Your task to perform on an android device: allow cookies in the chrome app Image 0: 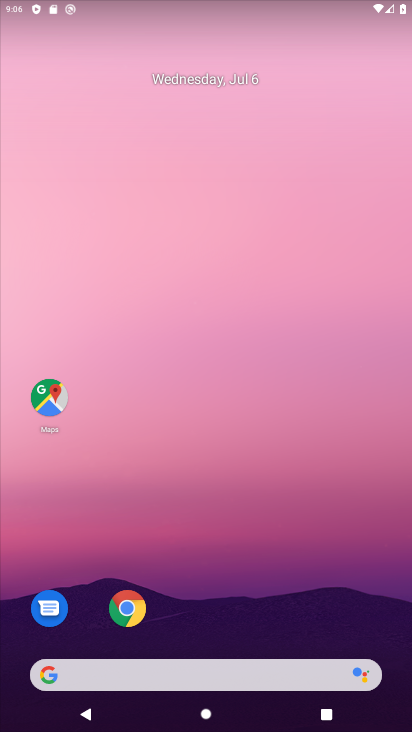
Step 0: click (130, 611)
Your task to perform on an android device: allow cookies in the chrome app Image 1: 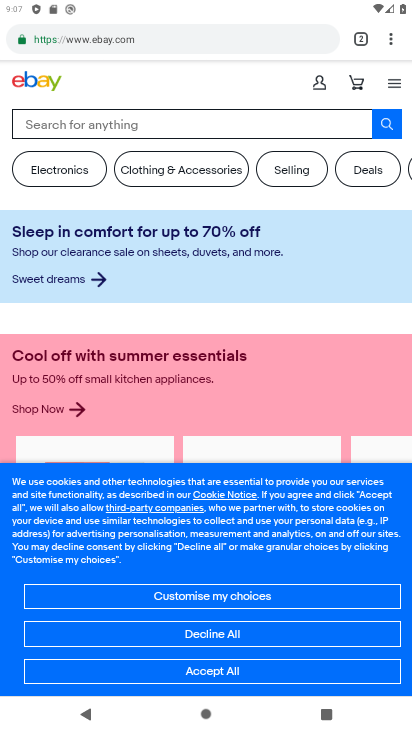
Step 1: click (392, 40)
Your task to perform on an android device: allow cookies in the chrome app Image 2: 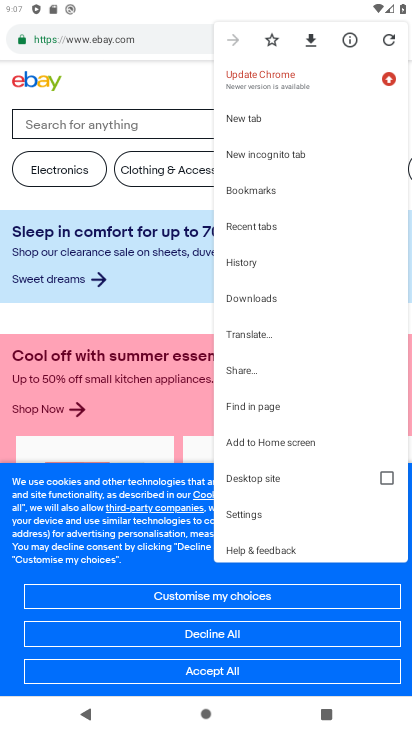
Step 2: click (243, 511)
Your task to perform on an android device: allow cookies in the chrome app Image 3: 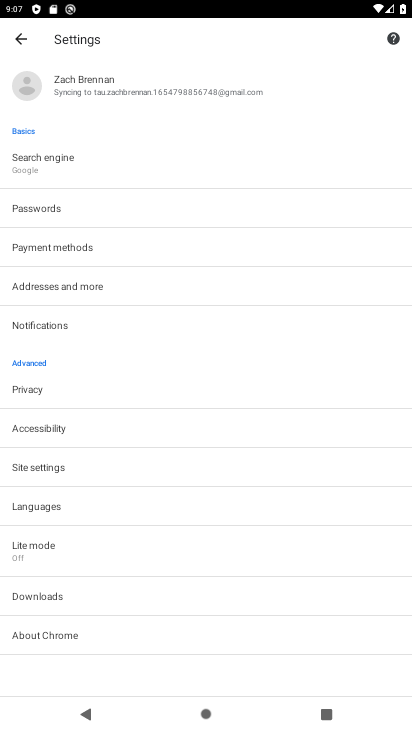
Step 3: click (46, 462)
Your task to perform on an android device: allow cookies in the chrome app Image 4: 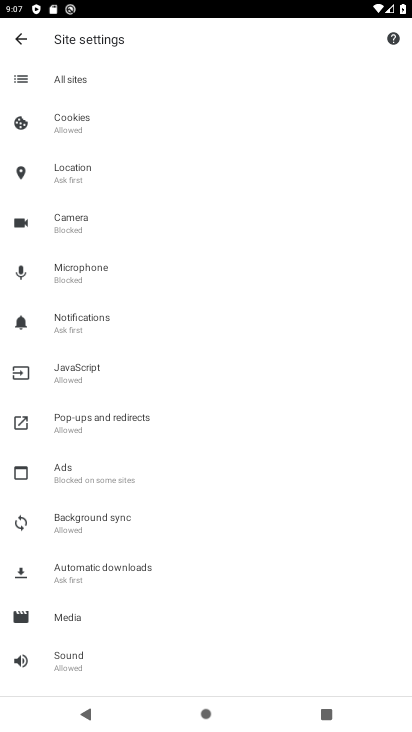
Step 4: click (70, 116)
Your task to perform on an android device: allow cookies in the chrome app Image 5: 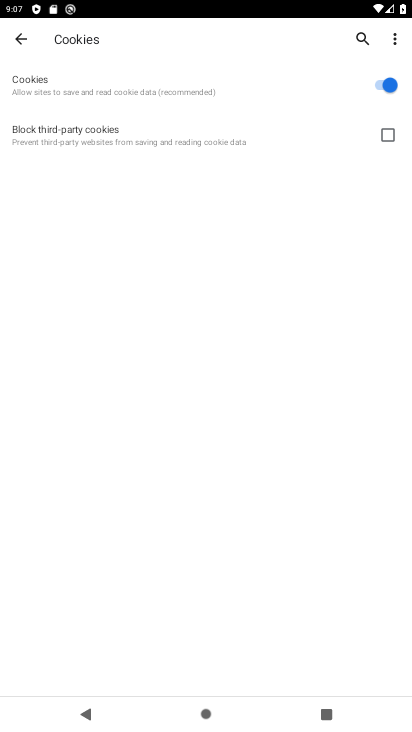
Step 5: task complete